Your task to perform on an android device: Open settings on Google Maps Image 0: 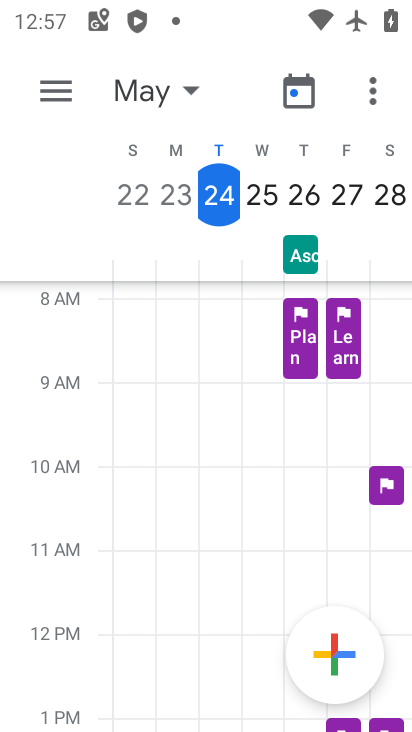
Step 0: press home button
Your task to perform on an android device: Open settings on Google Maps Image 1: 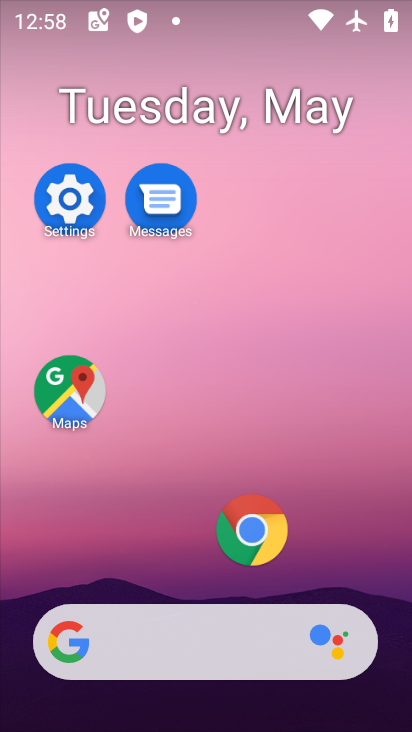
Step 1: drag from (139, 563) to (223, 157)
Your task to perform on an android device: Open settings on Google Maps Image 2: 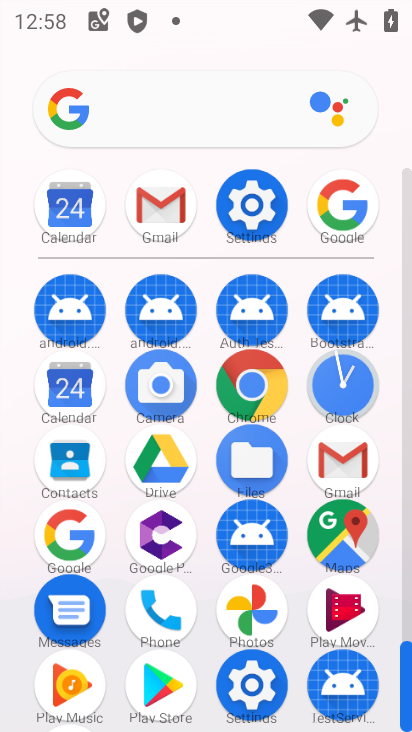
Step 2: click (349, 545)
Your task to perform on an android device: Open settings on Google Maps Image 3: 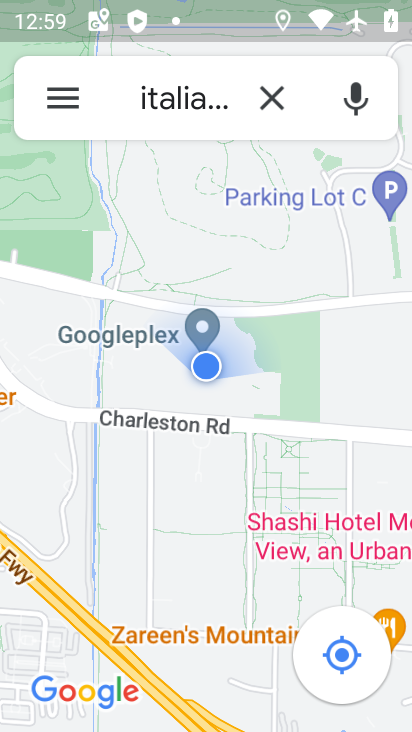
Step 3: click (69, 108)
Your task to perform on an android device: Open settings on Google Maps Image 4: 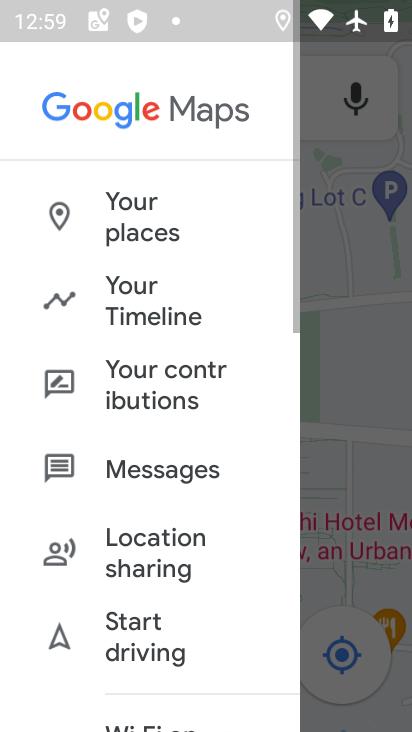
Step 4: drag from (139, 538) to (128, 182)
Your task to perform on an android device: Open settings on Google Maps Image 5: 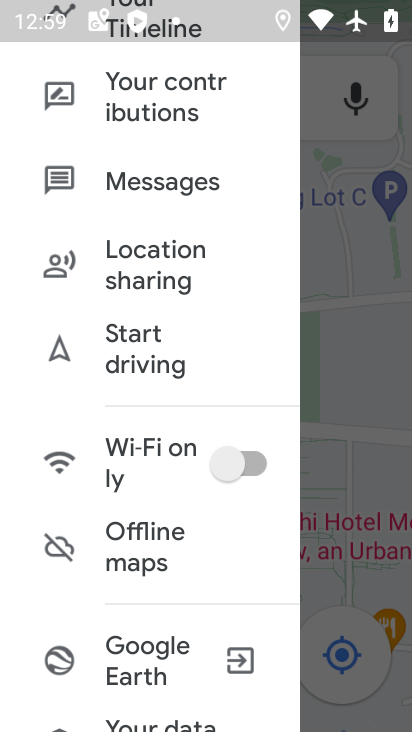
Step 5: drag from (135, 586) to (145, 145)
Your task to perform on an android device: Open settings on Google Maps Image 6: 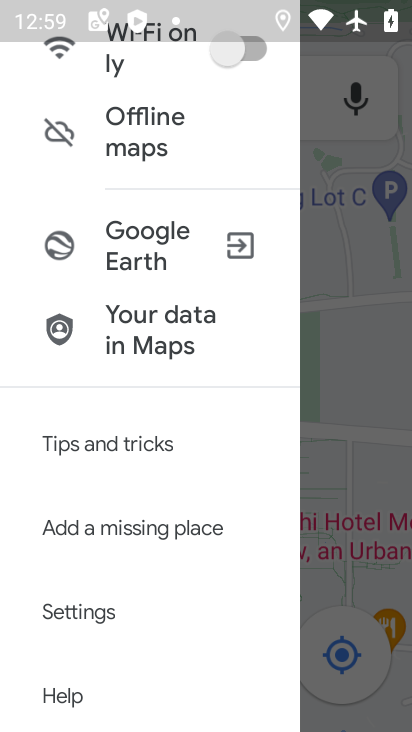
Step 6: click (127, 613)
Your task to perform on an android device: Open settings on Google Maps Image 7: 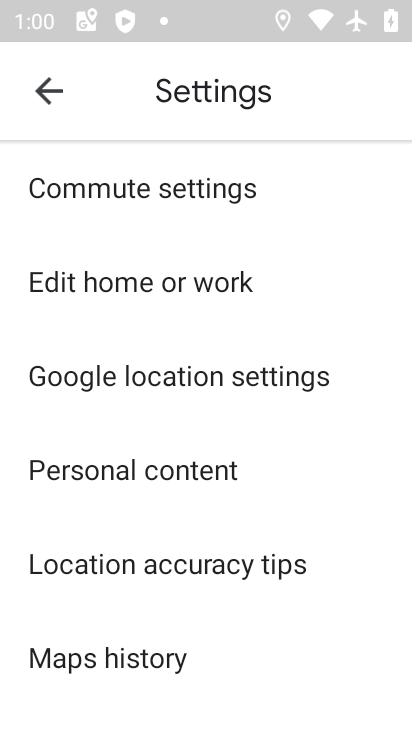
Step 7: task complete